Your task to perform on an android device: install app "The Home Depot" Image 0: 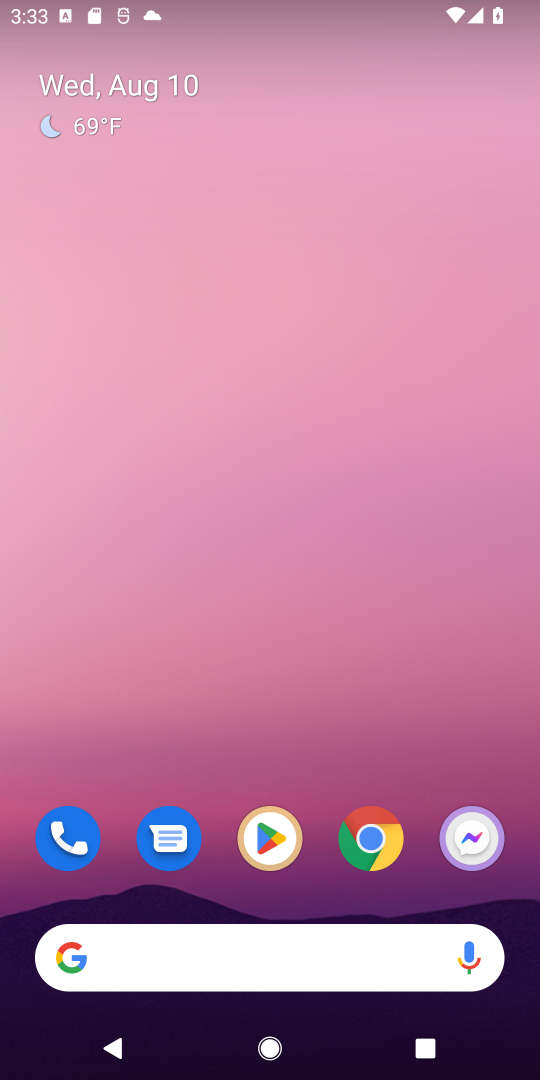
Step 0: press home button
Your task to perform on an android device: install app "The Home Depot" Image 1: 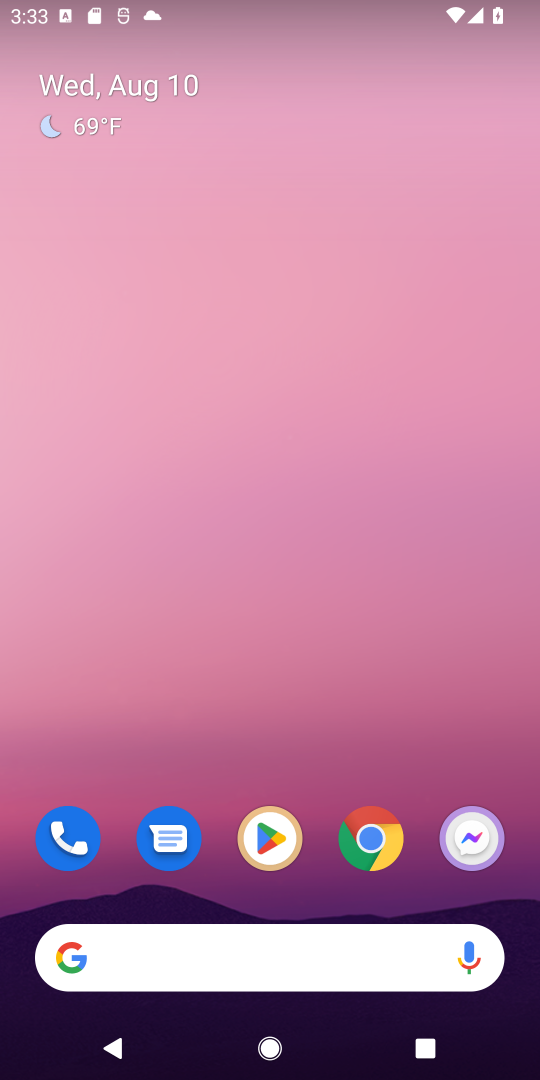
Step 1: click (268, 842)
Your task to perform on an android device: install app "The Home Depot" Image 2: 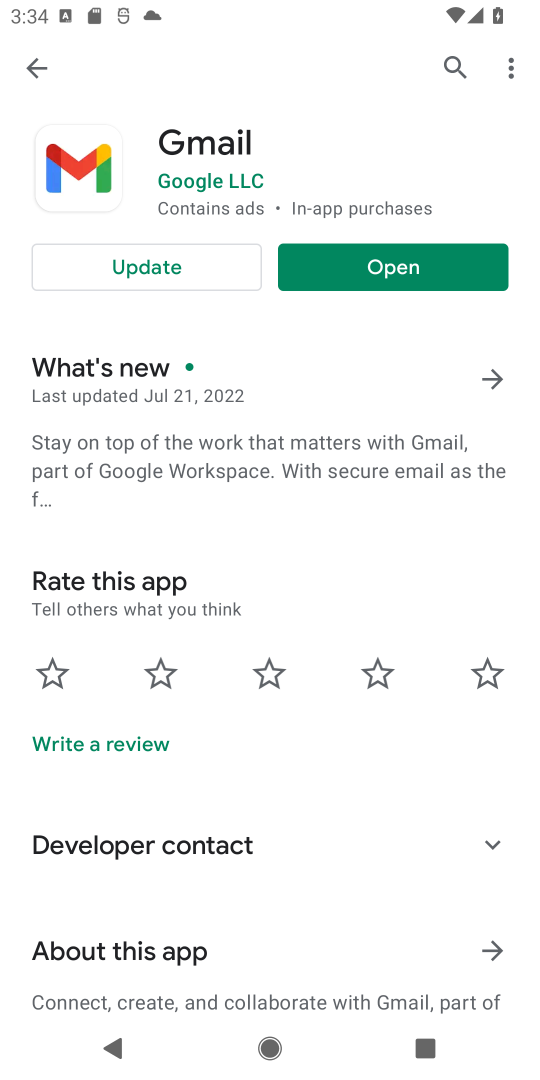
Step 2: click (451, 53)
Your task to perform on an android device: install app "The Home Depot" Image 3: 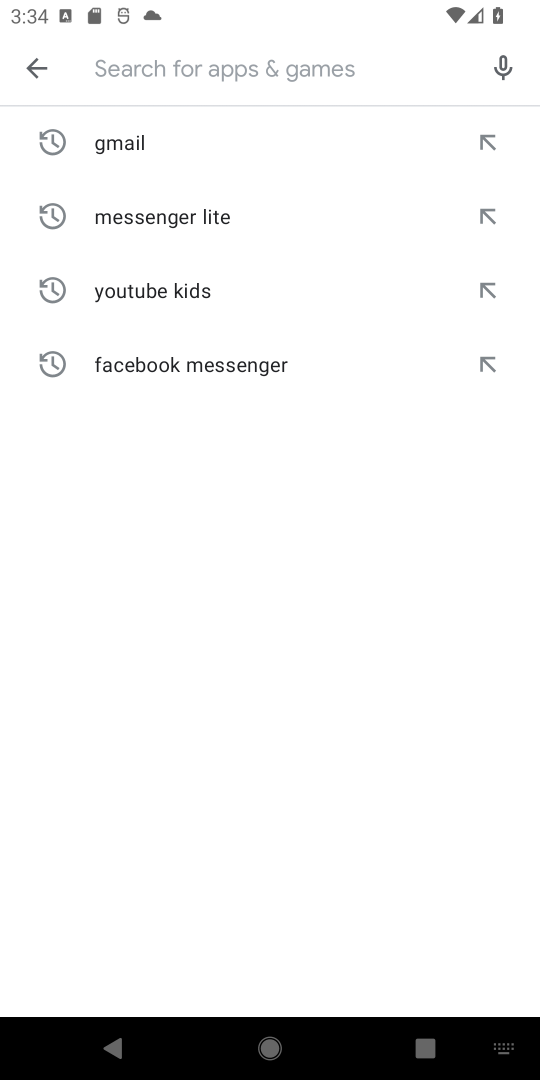
Step 3: type "The Home Depot"
Your task to perform on an android device: install app "The Home Depot" Image 4: 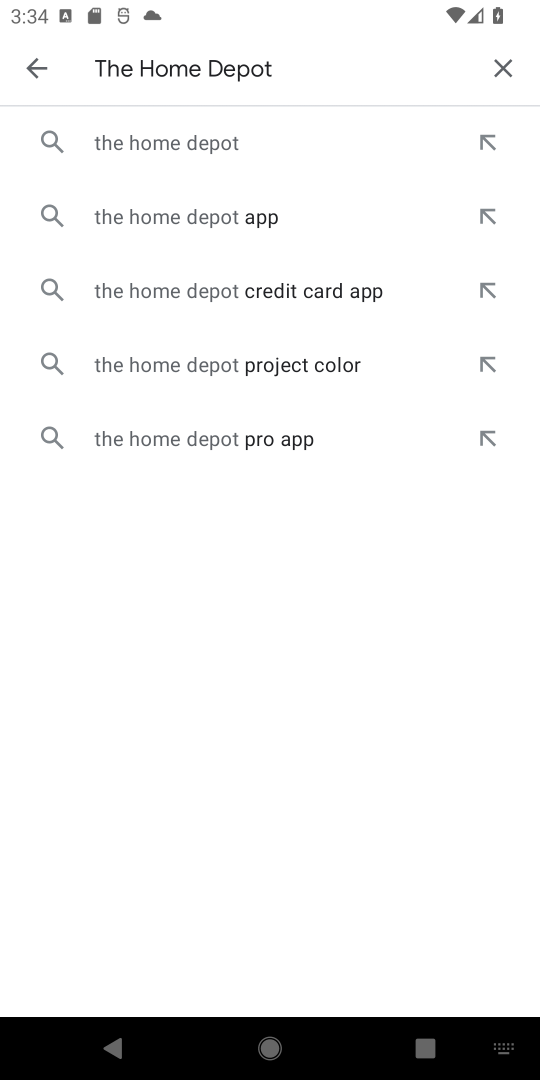
Step 4: click (226, 143)
Your task to perform on an android device: install app "The Home Depot" Image 5: 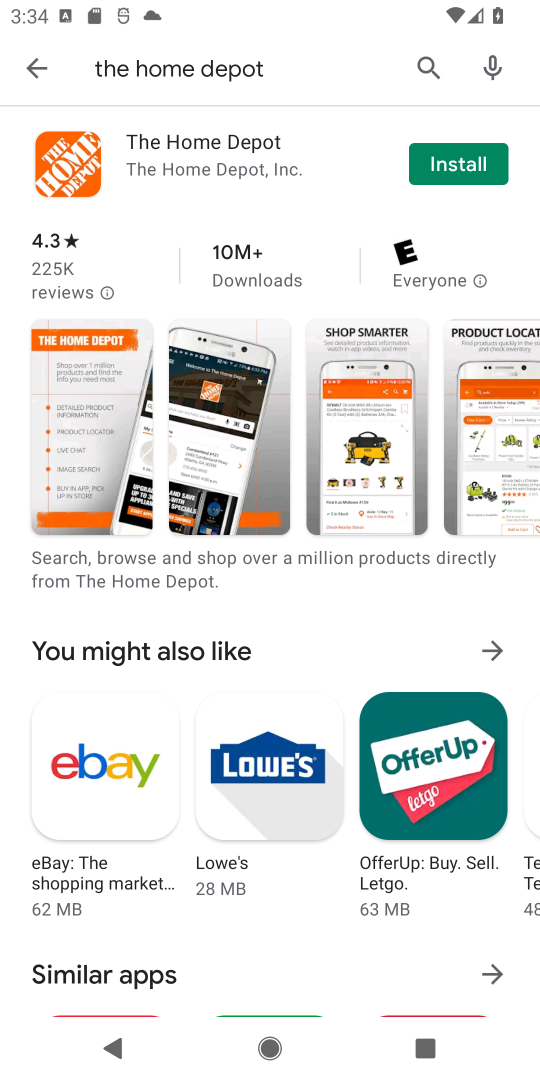
Step 5: click (463, 147)
Your task to perform on an android device: install app "The Home Depot" Image 6: 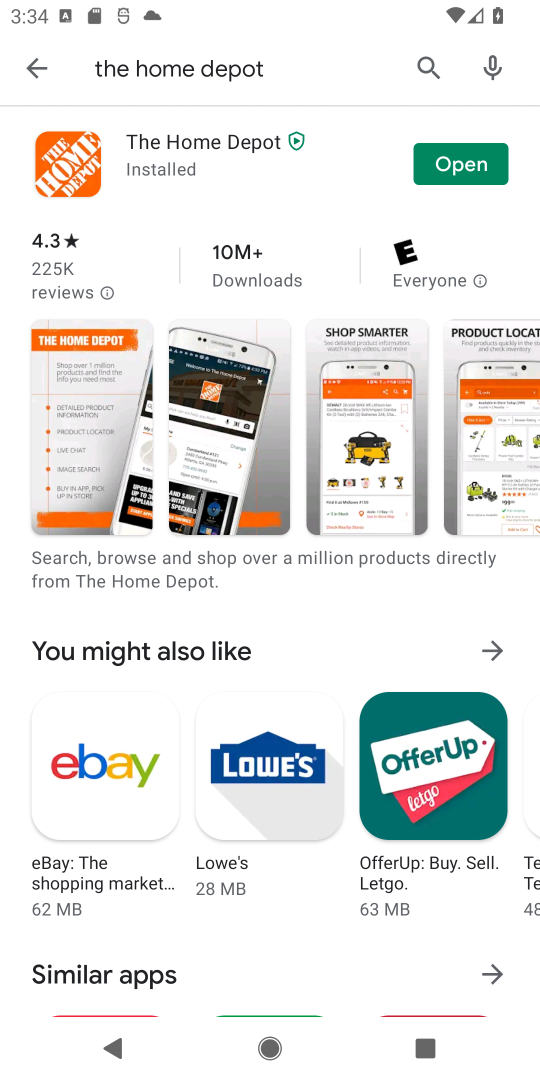
Step 6: task complete